Your task to perform on an android device: toggle javascript in the chrome app Image 0: 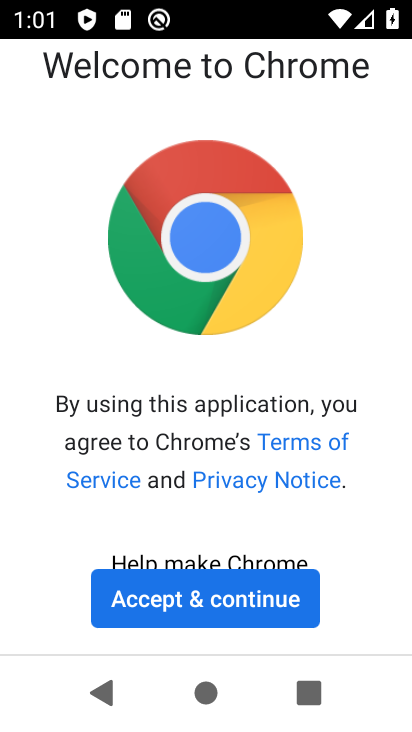
Step 0: click (223, 606)
Your task to perform on an android device: toggle javascript in the chrome app Image 1: 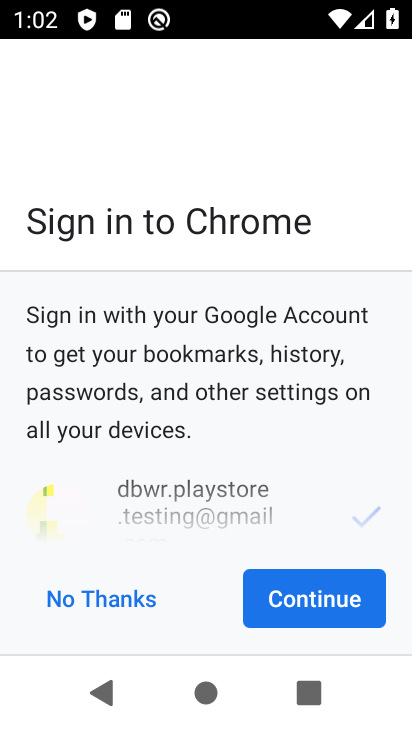
Step 1: click (323, 595)
Your task to perform on an android device: toggle javascript in the chrome app Image 2: 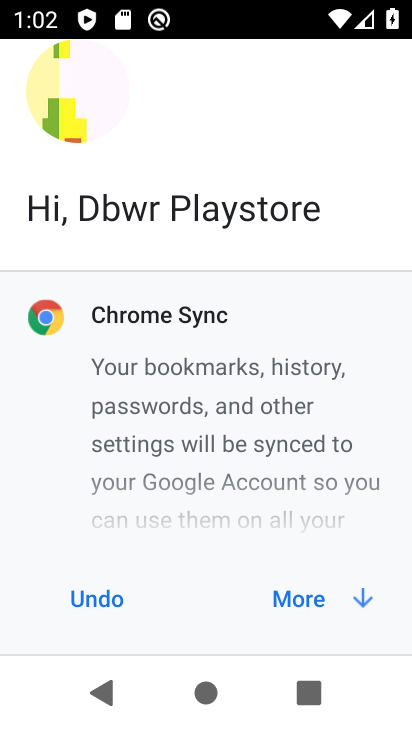
Step 2: click (321, 597)
Your task to perform on an android device: toggle javascript in the chrome app Image 3: 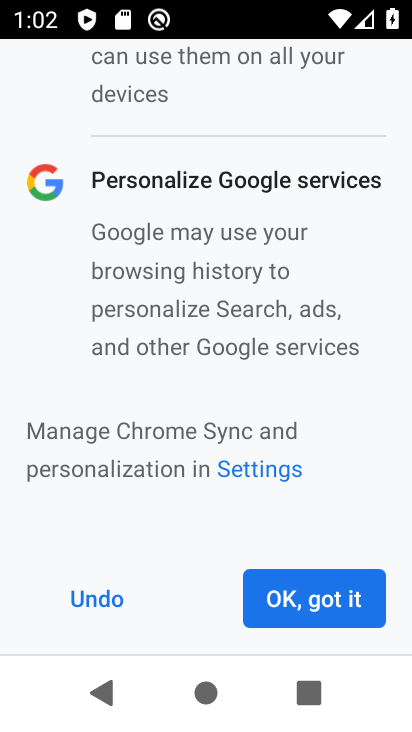
Step 3: click (321, 597)
Your task to perform on an android device: toggle javascript in the chrome app Image 4: 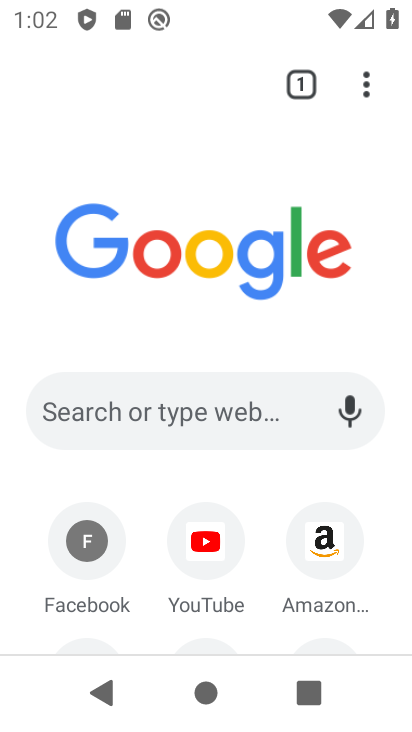
Step 4: click (366, 81)
Your task to perform on an android device: toggle javascript in the chrome app Image 5: 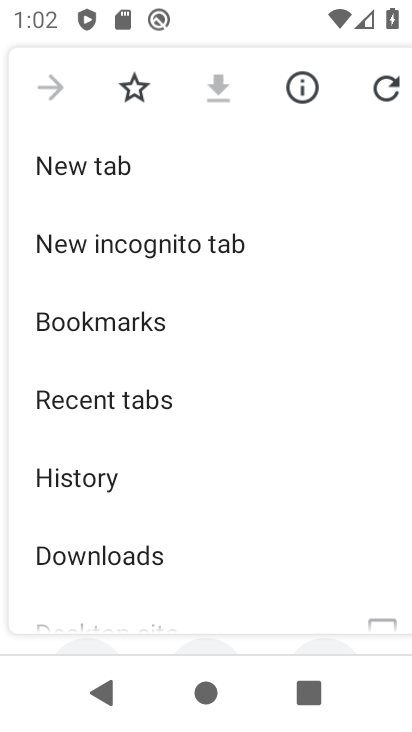
Step 5: drag from (299, 540) to (296, 254)
Your task to perform on an android device: toggle javascript in the chrome app Image 6: 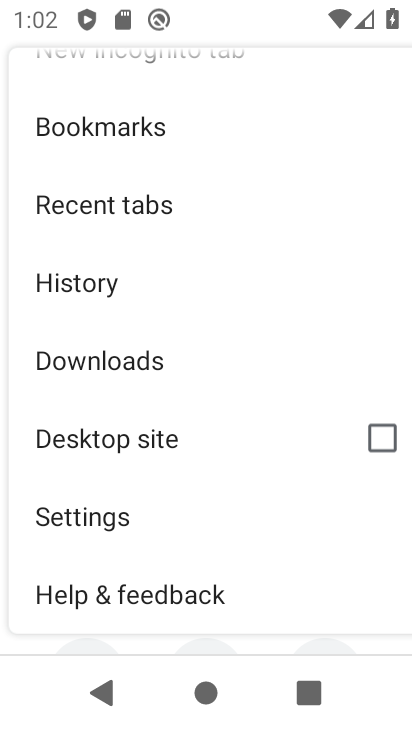
Step 6: click (99, 521)
Your task to perform on an android device: toggle javascript in the chrome app Image 7: 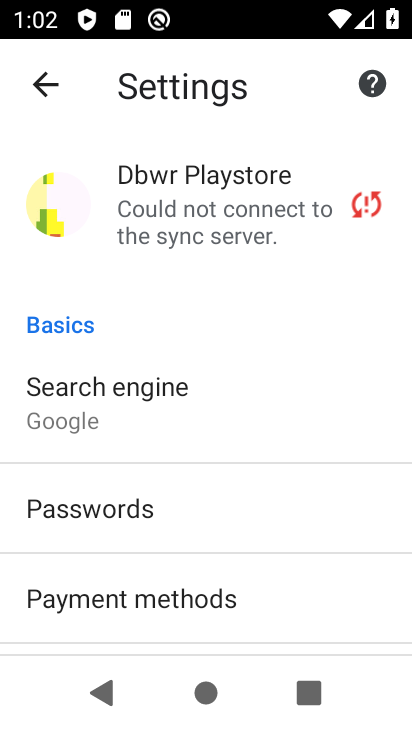
Step 7: drag from (304, 575) to (318, 291)
Your task to perform on an android device: toggle javascript in the chrome app Image 8: 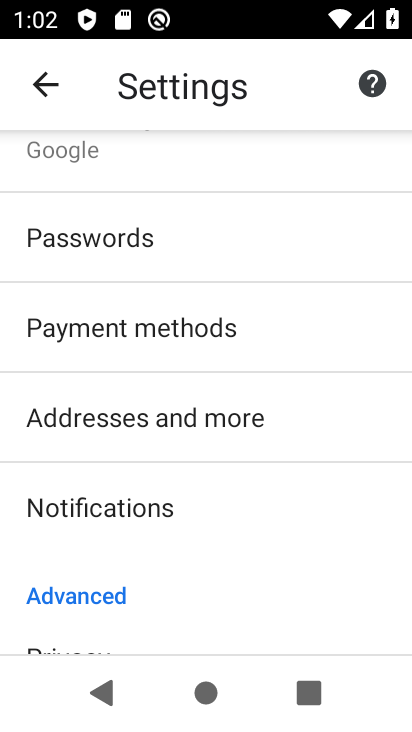
Step 8: drag from (307, 568) to (304, 230)
Your task to perform on an android device: toggle javascript in the chrome app Image 9: 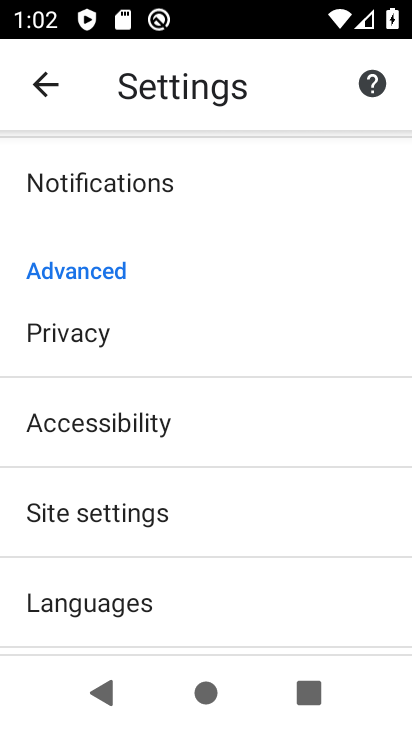
Step 9: click (184, 514)
Your task to perform on an android device: toggle javascript in the chrome app Image 10: 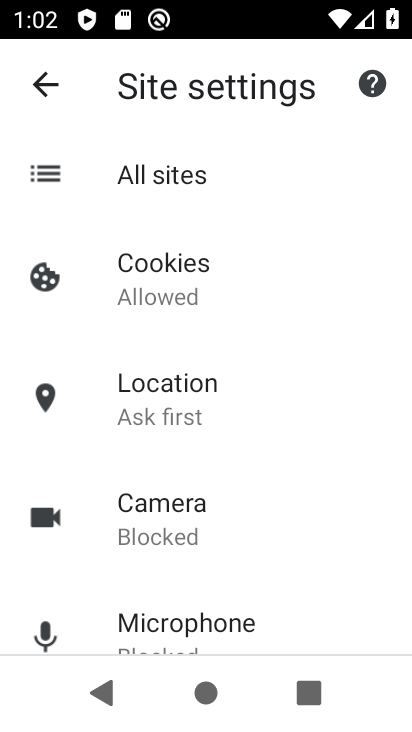
Step 10: drag from (313, 524) to (311, 326)
Your task to perform on an android device: toggle javascript in the chrome app Image 11: 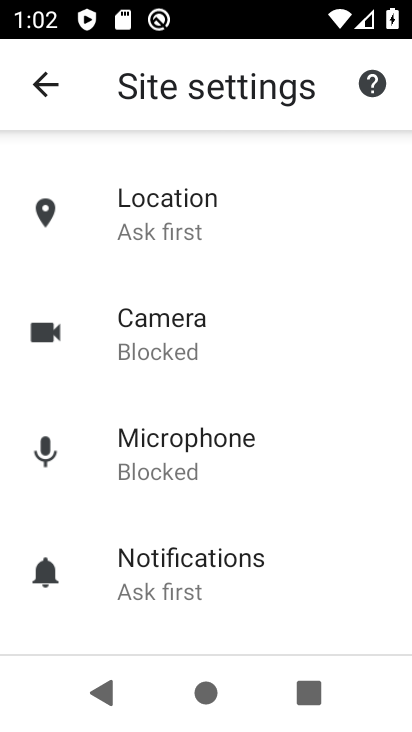
Step 11: drag from (349, 522) to (346, 314)
Your task to perform on an android device: toggle javascript in the chrome app Image 12: 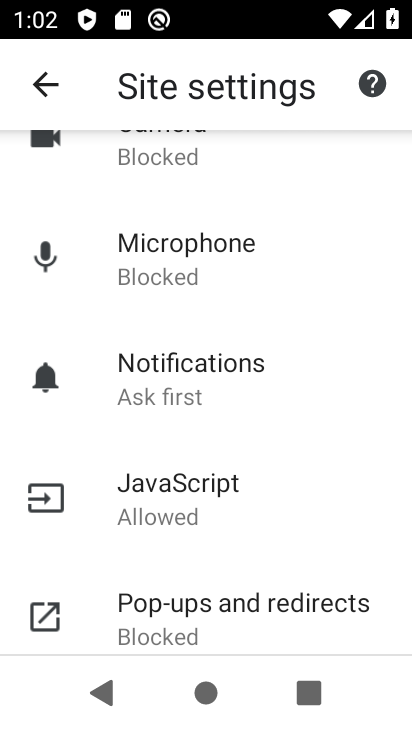
Step 12: click (198, 502)
Your task to perform on an android device: toggle javascript in the chrome app Image 13: 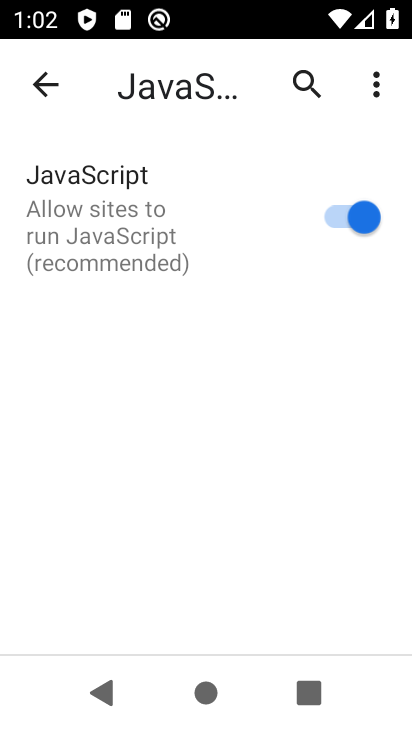
Step 13: click (341, 213)
Your task to perform on an android device: toggle javascript in the chrome app Image 14: 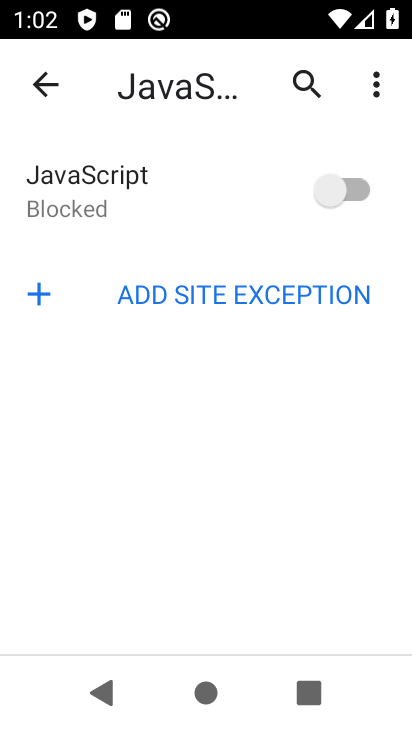
Step 14: task complete